Your task to perform on an android device: check battery use Image 0: 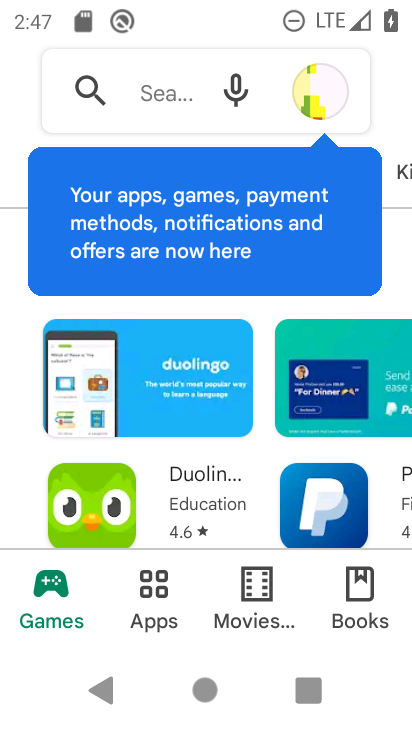
Step 0: press home button
Your task to perform on an android device: check battery use Image 1: 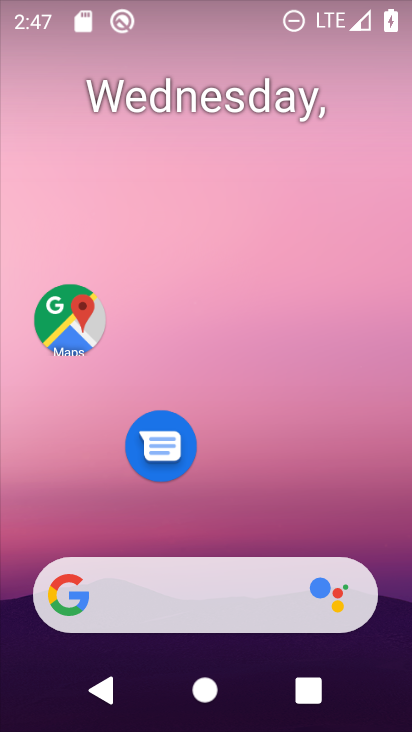
Step 1: drag from (345, 463) to (343, 216)
Your task to perform on an android device: check battery use Image 2: 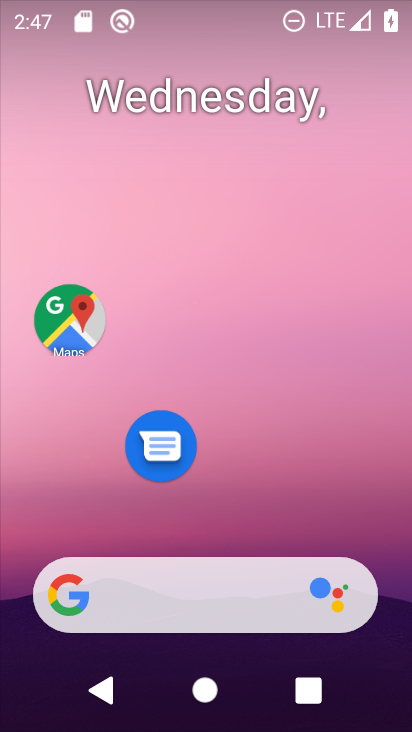
Step 2: drag from (272, 497) to (310, 15)
Your task to perform on an android device: check battery use Image 3: 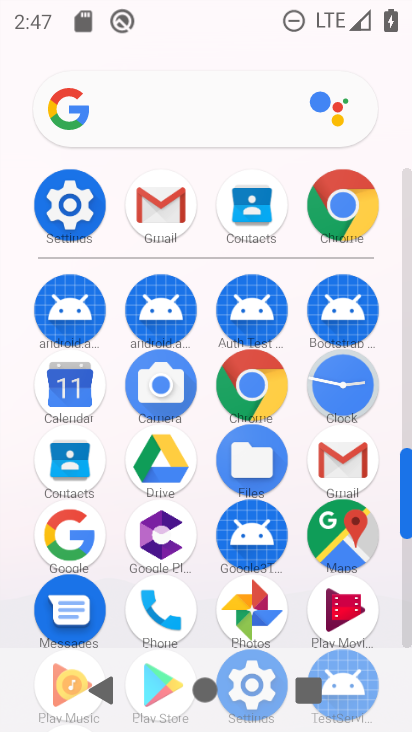
Step 3: click (76, 231)
Your task to perform on an android device: check battery use Image 4: 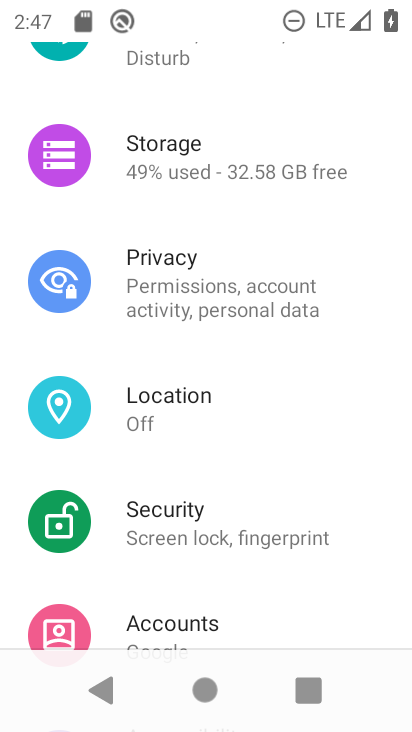
Step 4: drag from (249, 208) to (235, 494)
Your task to perform on an android device: check battery use Image 5: 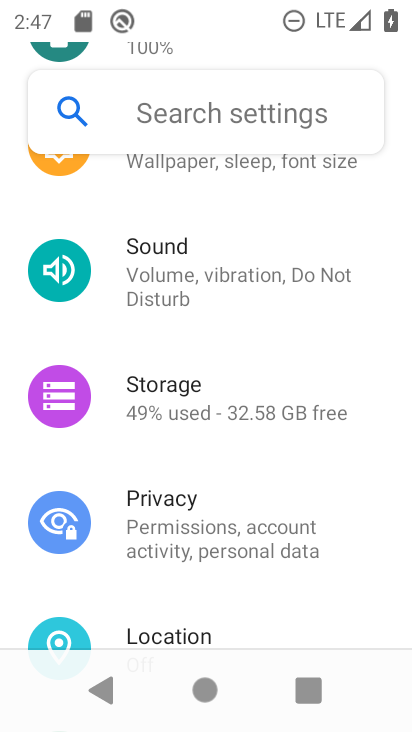
Step 5: drag from (233, 240) to (234, 463)
Your task to perform on an android device: check battery use Image 6: 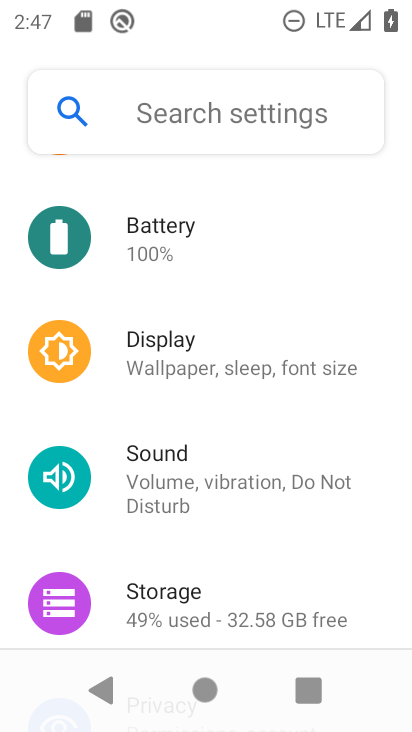
Step 6: click (249, 244)
Your task to perform on an android device: check battery use Image 7: 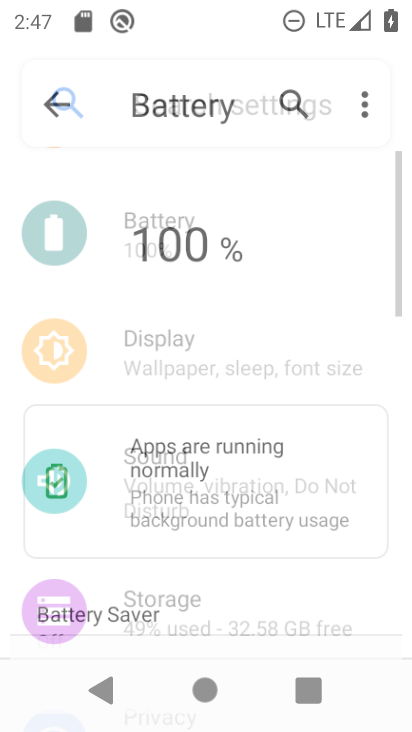
Step 7: task complete